Your task to perform on an android device: open app "Expedia: Hotels, Flights & Car" (install if not already installed) Image 0: 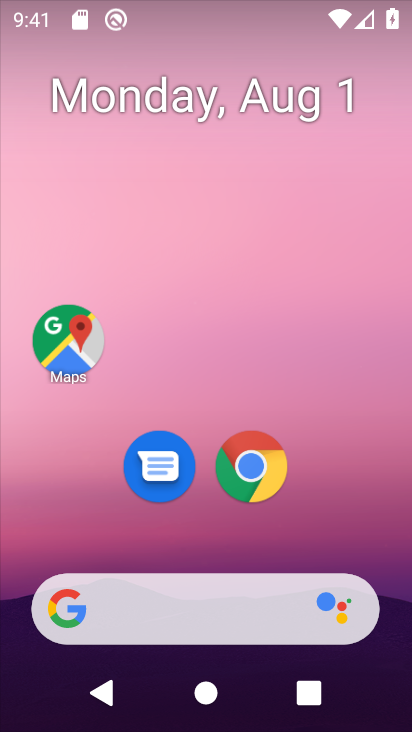
Step 0: drag from (228, 562) to (210, 96)
Your task to perform on an android device: open app "Expedia: Hotels, Flights & Car" (install if not already installed) Image 1: 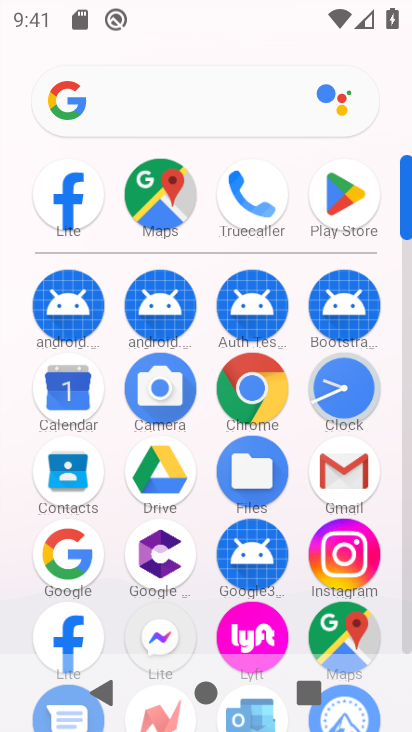
Step 1: click (346, 192)
Your task to perform on an android device: open app "Expedia: Hotels, Flights & Car" (install if not already installed) Image 2: 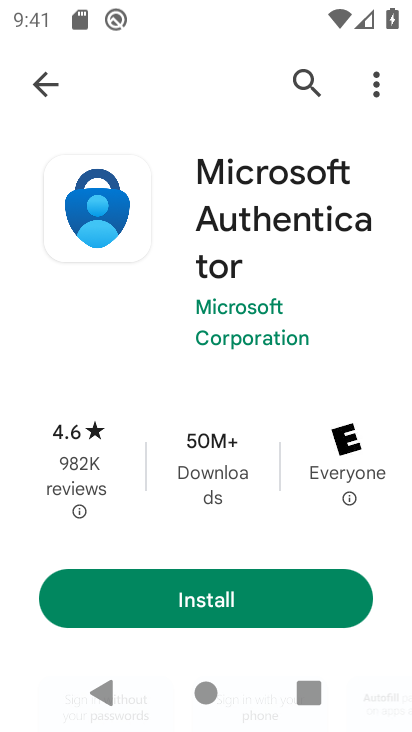
Step 2: click (309, 69)
Your task to perform on an android device: open app "Expedia: Hotels, Flights & Car" (install if not already installed) Image 3: 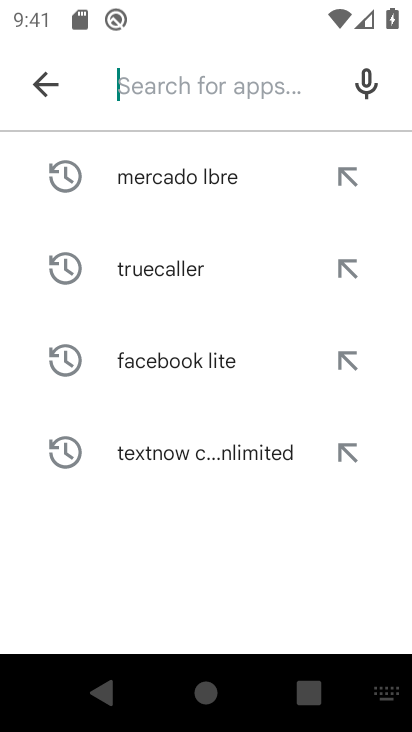
Step 3: type "Expedia: Hotels, Flights & Car"
Your task to perform on an android device: open app "Expedia: Hotels, Flights & Car" (install if not already installed) Image 4: 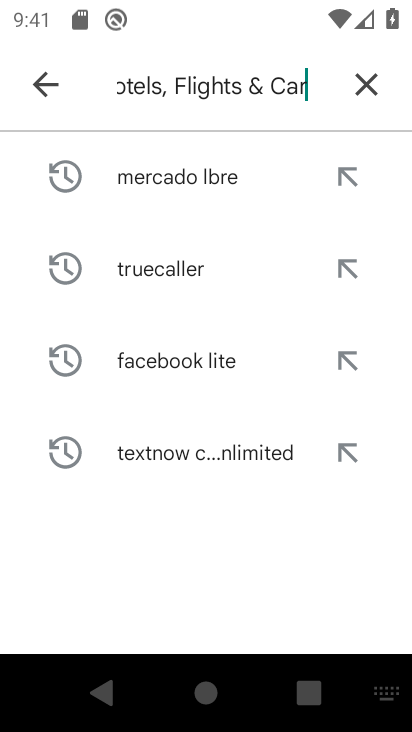
Step 4: type ""
Your task to perform on an android device: open app "Expedia: Hotels, Flights & Car" (install if not already installed) Image 5: 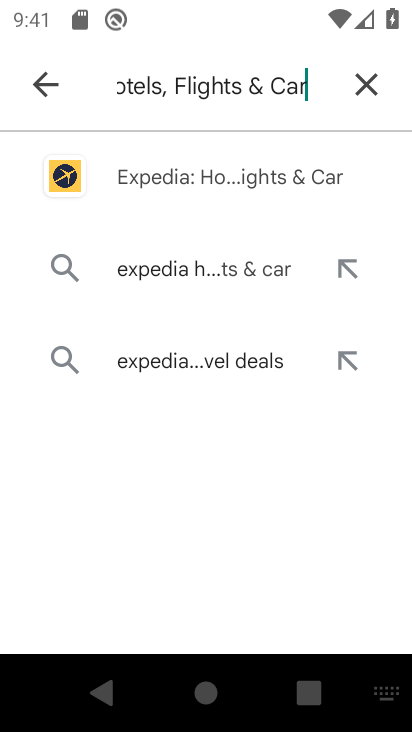
Step 5: click (254, 174)
Your task to perform on an android device: open app "Expedia: Hotels, Flights & Car" (install if not already installed) Image 6: 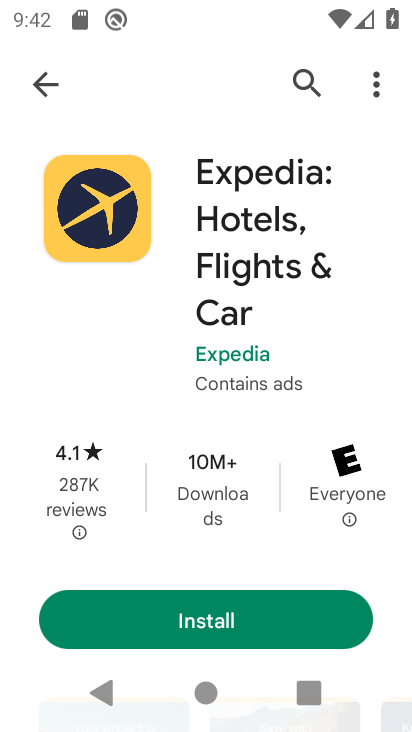
Step 6: click (210, 618)
Your task to perform on an android device: open app "Expedia: Hotels, Flights & Car" (install if not already installed) Image 7: 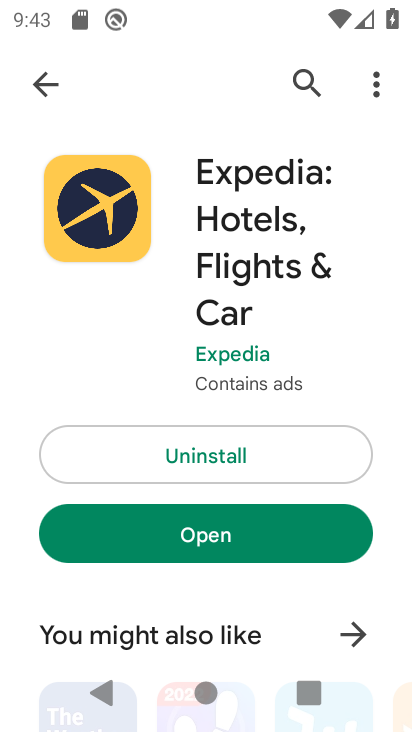
Step 7: click (310, 79)
Your task to perform on an android device: open app "Expedia: Hotels, Flights & Car" (install if not already installed) Image 8: 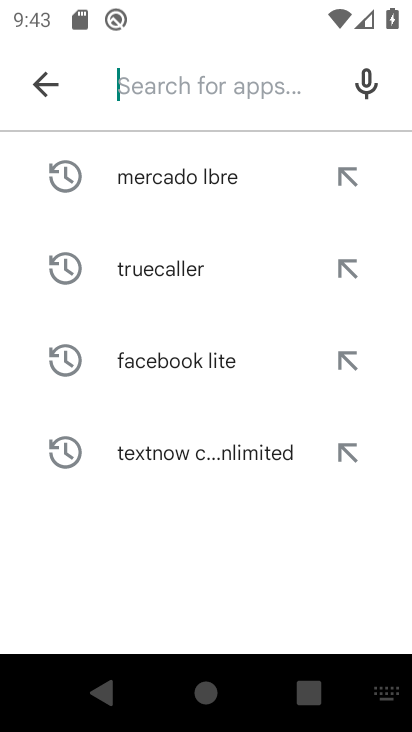
Step 8: type "Expedia: Hotels, Flights & Ca"
Your task to perform on an android device: open app "Expedia: Hotels, Flights & Car" (install if not already installed) Image 9: 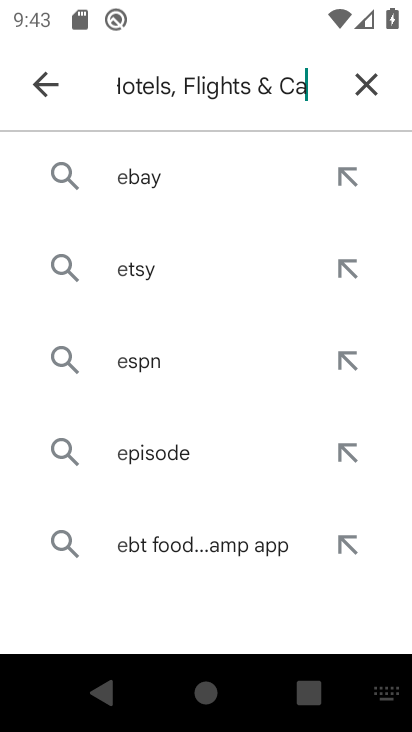
Step 9: type ""
Your task to perform on an android device: open app "Expedia: Hotels, Flights & Car" (install if not already installed) Image 10: 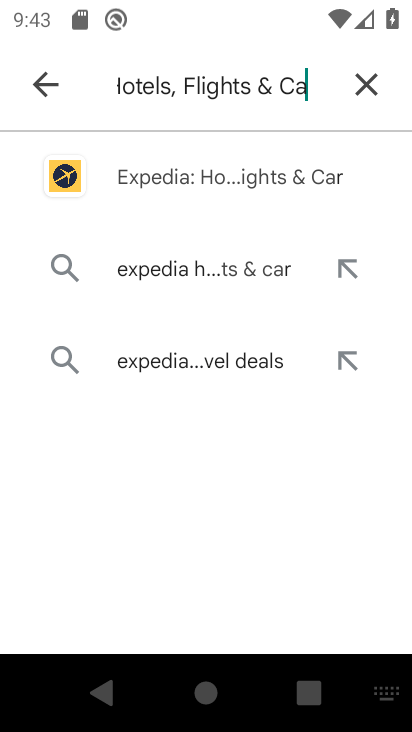
Step 10: click (173, 175)
Your task to perform on an android device: open app "Expedia: Hotels, Flights & Car" (install if not already installed) Image 11: 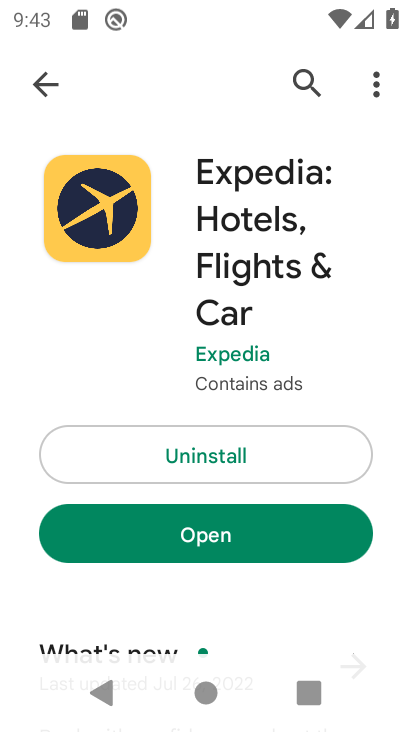
Step 11: click (200, 539)
Your task to perform on an android device: open app "Expedia: Hotels, Flights & Car" (install if not already installed) Image 12: 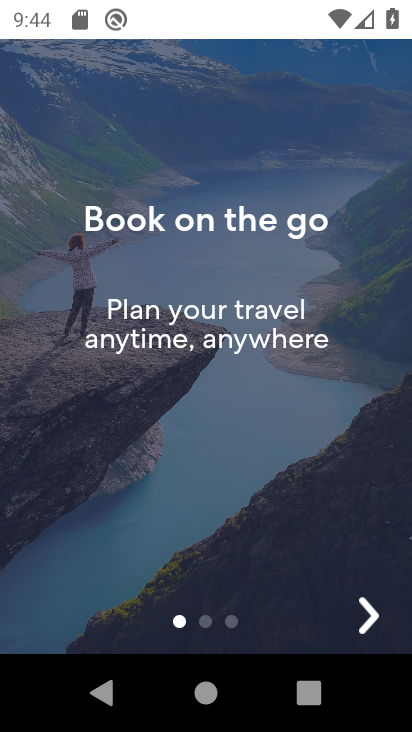
Step 12: task complete